Your task to perform on an android device: toggle javascript in the chrome app Image 0: 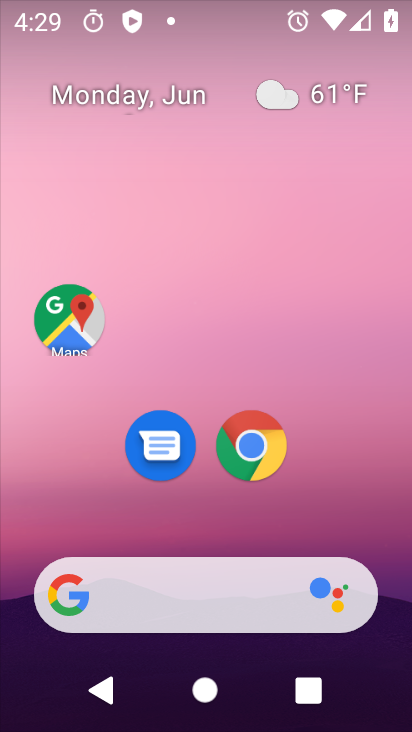
Step 0: click (266, 452)
Your task to perform on an android device: toggle javascript in the chrome app Image 1: 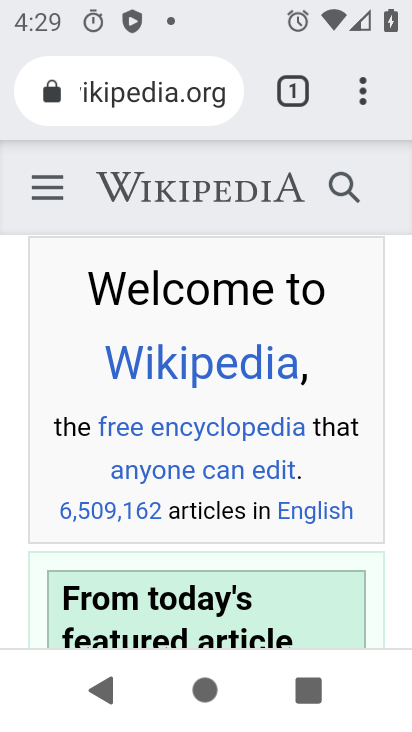
Step 1: click (362, 87)
Your task to perform on an android device: toggle javascript in the chrome app Image 2: 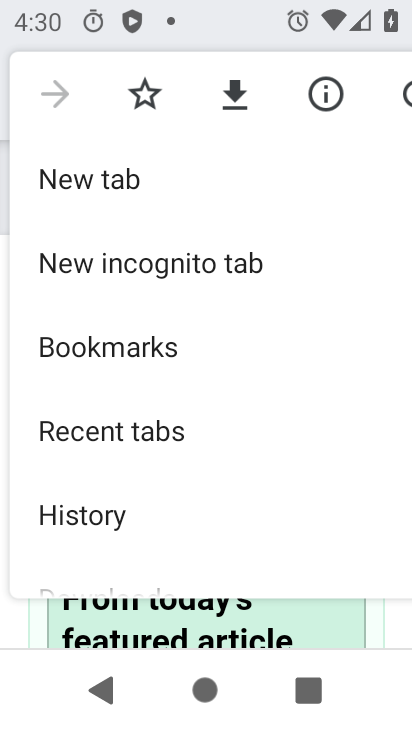
Step 2: click (178, 97)
Your task to perform on an android device: toggle javascript in the chrome app Image 3: 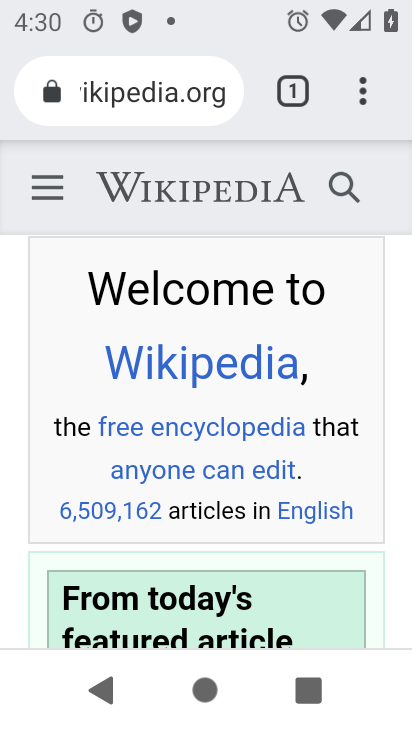
Step 3: click (359, 95)
Your task to perform on an android device: toggle javascript in the chrome app Image 4: 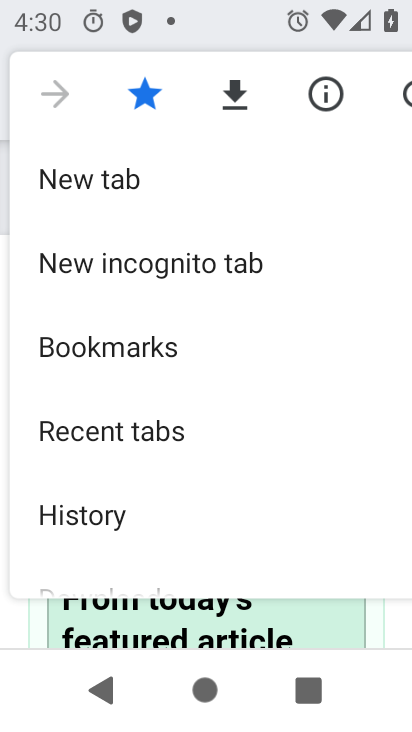
Step 4: drag from (150, 527) to (176, 320)
Your task to perform on an android device: toggle javascript in the chrome app Image 5: 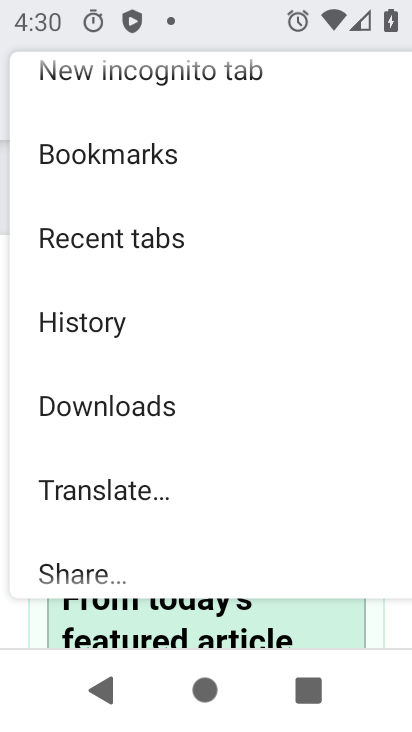
Step 5: drag from (140, 498) to (164, 355)
Your task to perform on an android device: toggle javascript in the chrome app Image 6: 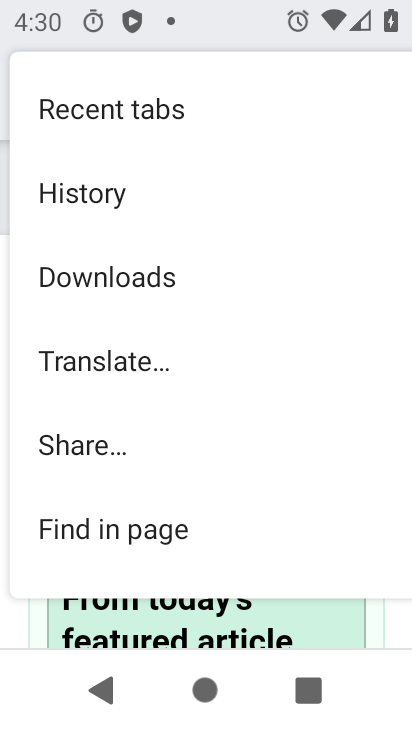
Step 6: drag from (105, 512) to (126, 386)
Your task to perform on an android device: toggle javascript in the chrome app Image 7: 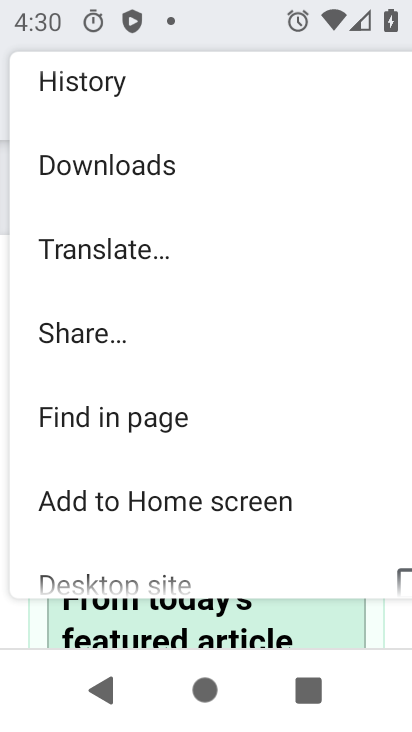
Step 7: drag from (91, 518) to (121, 382)
Your task to perform on an android device: toggle javascript in the chrome app Image 8: 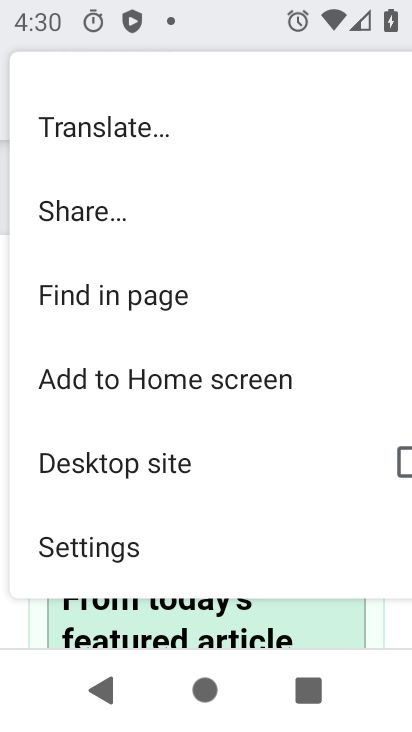
Step 8: click (83, 535)
Your task to perform on an android device: toggle javascript in the chrome app Image 9: 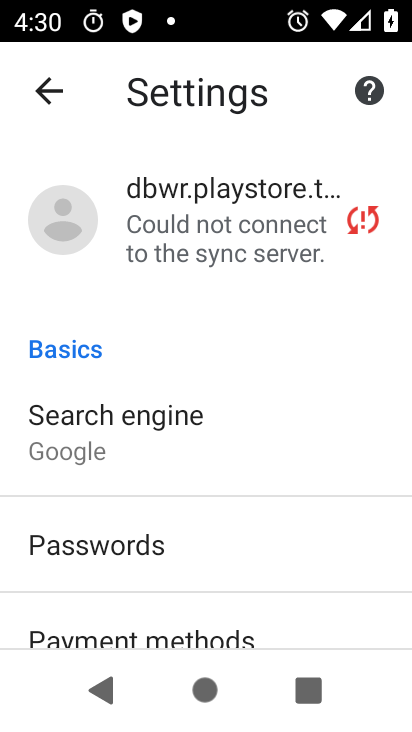
Step 9: drag from (104, 567) to (114, 337)
Your task to perform on an android device: toggle javascript in the chrome app Image 10: 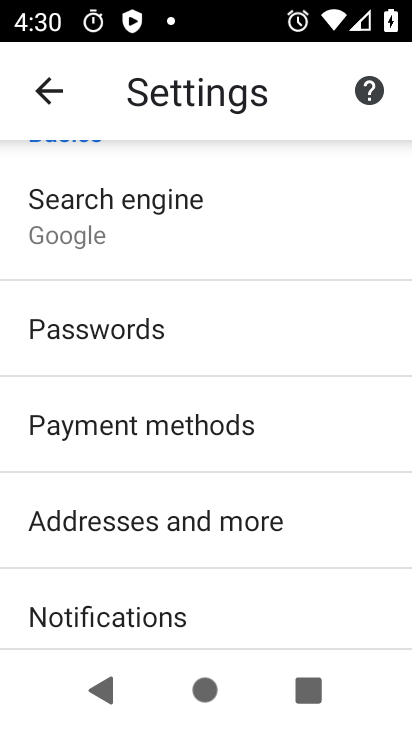
Step 10: drag from (198, 567) to (209, 359)
Your task to perform on an android device: toggle javascript in the chrome app Image 11: 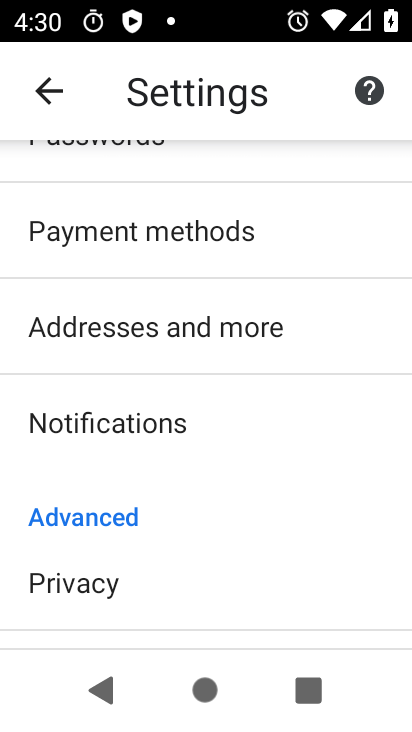
Step 11: drag from (139, 557) to (159, 260)
Your task to perform on an android device: toggle javascript in the chrome app Image 12: 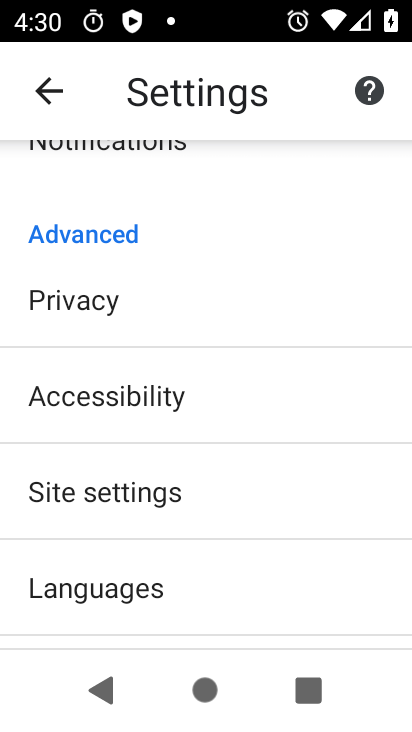
Step 12: click (135, 495)
Your task to perform on an android device: toggle javascript in the chrome app Image 13: 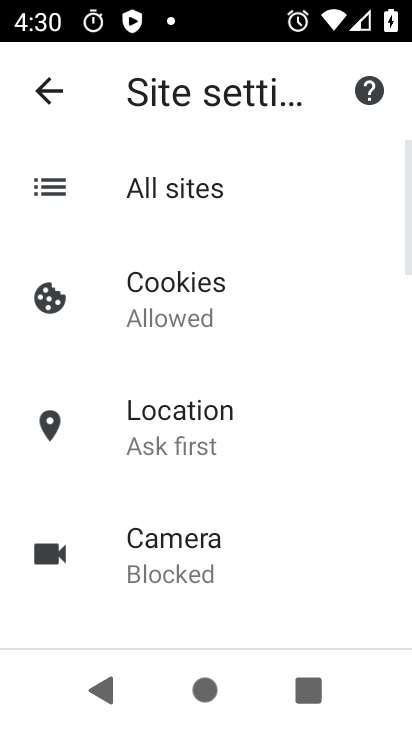
Step 13: drag from (238, 576) to (236, 346)
Your task to perform on an android device: toggle javascript in the chrome app Image 14: 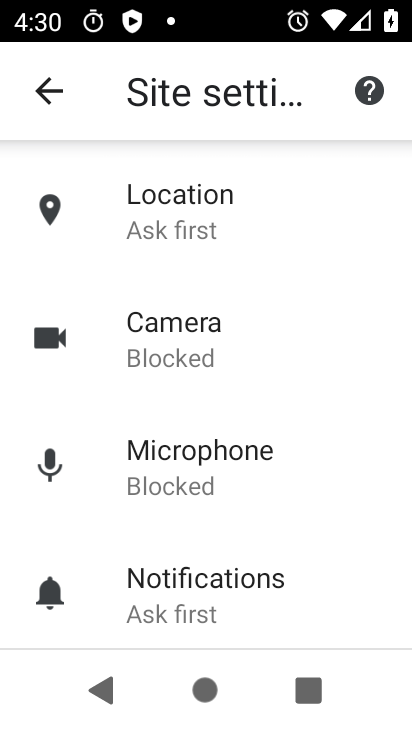
Step 14: drag from (218, 583) to (229, 402)
Your task to perform on an android device: toggle javascript in the chrome app Image 15: 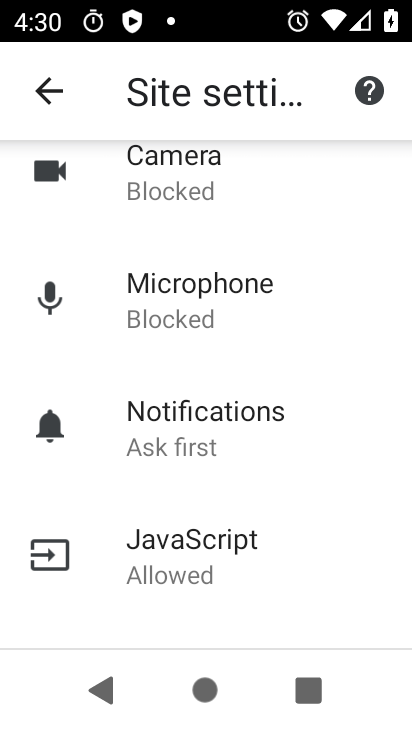
Step 15: click (189, 581)
Your task to perform on an android device: toggle javascript in the chrome app Image 16: 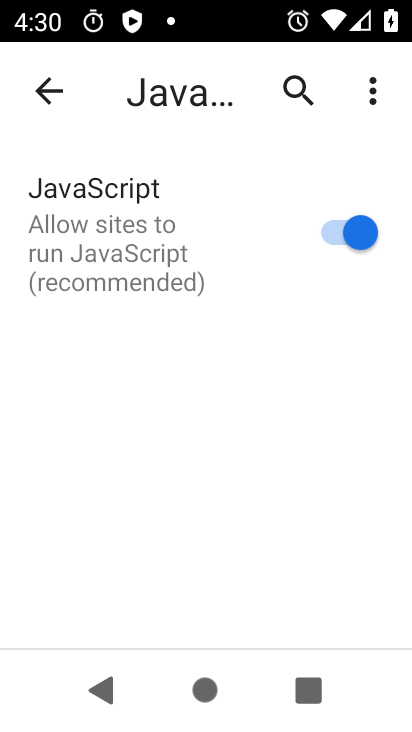
Step 16: click (336, 248)
Your task to perform on an android device: toggle javascript in the chrome app Image 17: 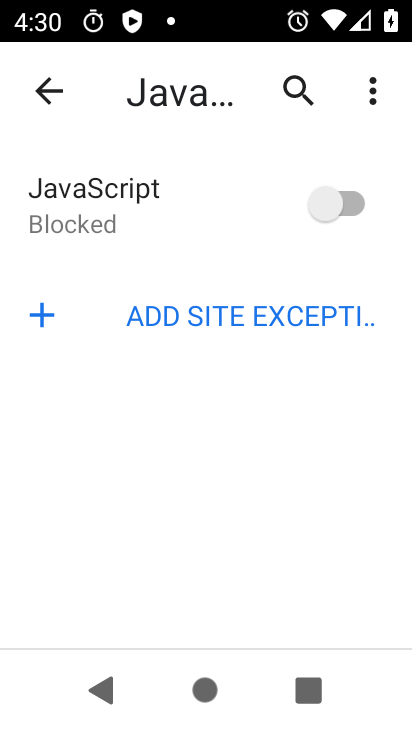
Step 17: task complete